Your task to perform on an android device: set the timer Image 0: 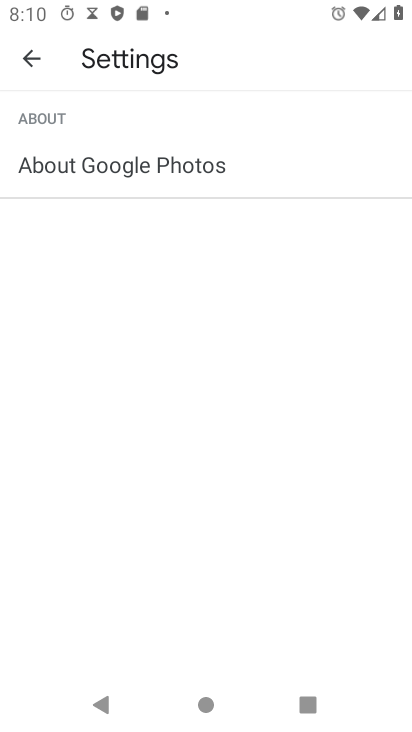
Step 0: press home button
Your task to perform on an android device: set the timer Image 1: 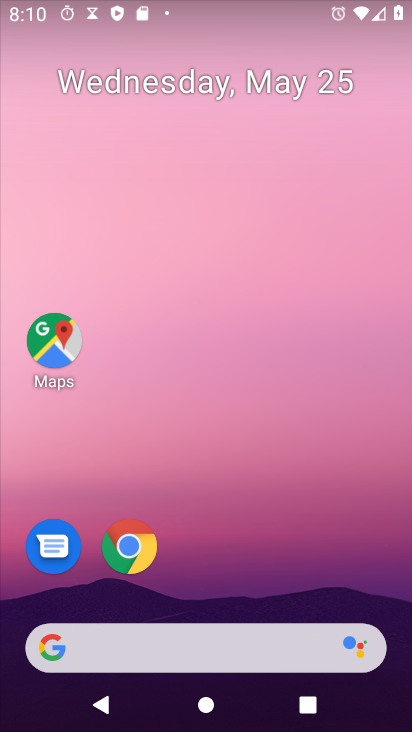
Step 1: drag from (239, 569) to (203, 19)
Your task to perform on an android device: set the timer Image 2: 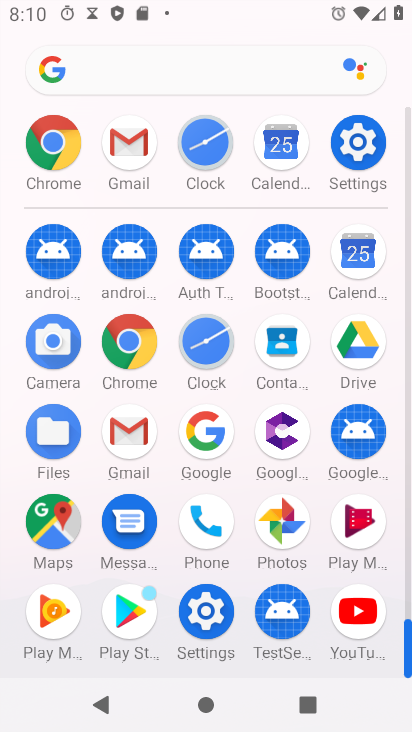
Step 2: click (187, 361)
Your task to perform on an android device: set the timer Image 3: 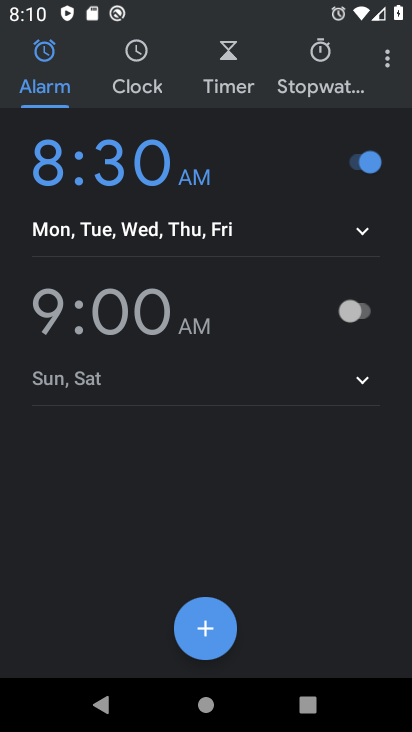
Step 3: click (221, 84)
Your task to perform on an android device: set the timer Image 4: 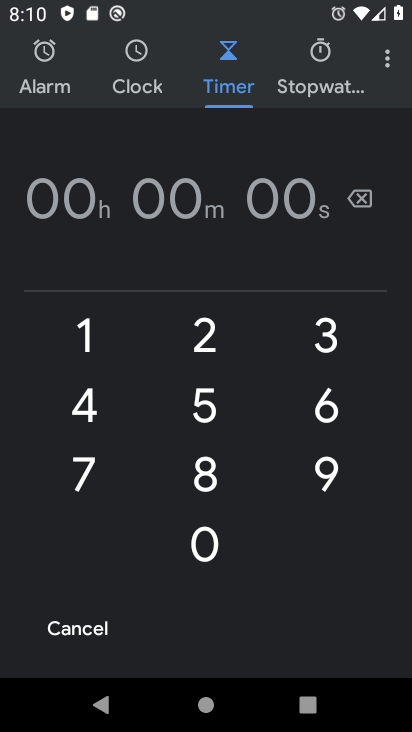
Step 4: click (89, 340)
Your task to perform on an android device: set the timer Image 5: 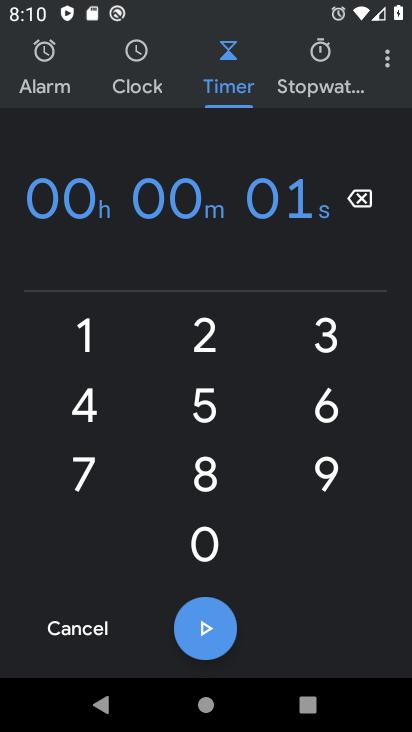
Step 5: click (204, 533)
Your task to perform on an android device: set the timer Image 6: 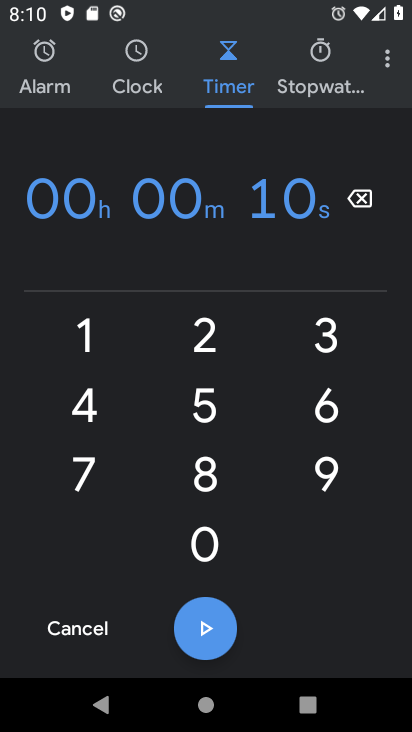
Step 6: click (202, 550)
Your task to perform on an android device: set the timer Image 7: 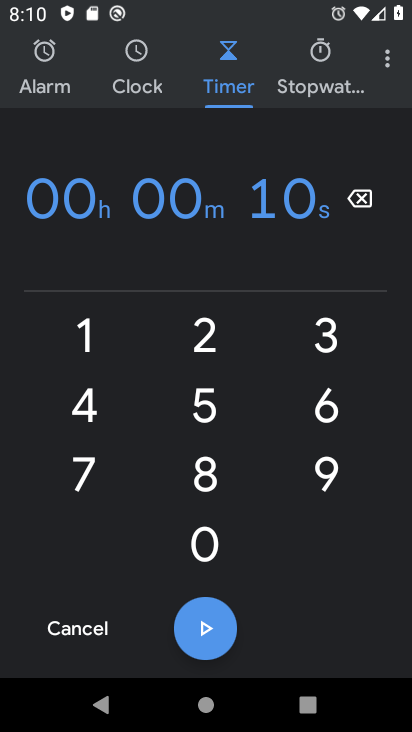
Step 7: click (202, 550)
Your task to perform on an android device: set the timer Image 8: 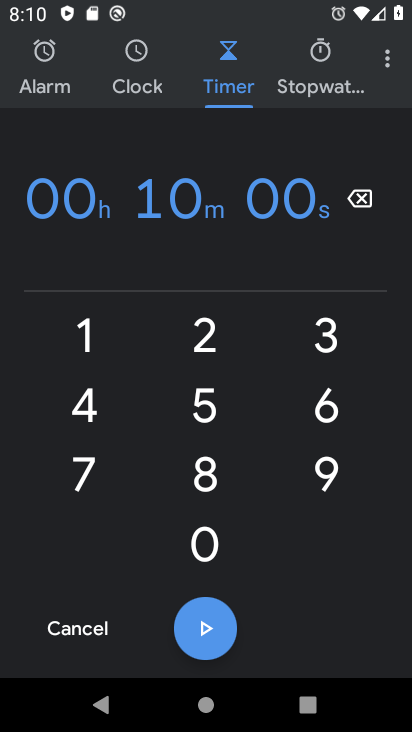
Step 8: click (202, 645)
Your task to perform on an android device: set the timer Image 9: 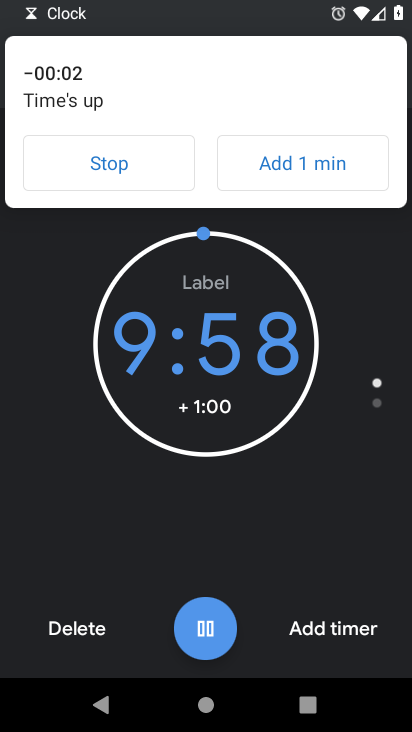
Step 9: click (119, 167)
Your task to perform on an android device: set the timer Image 10: 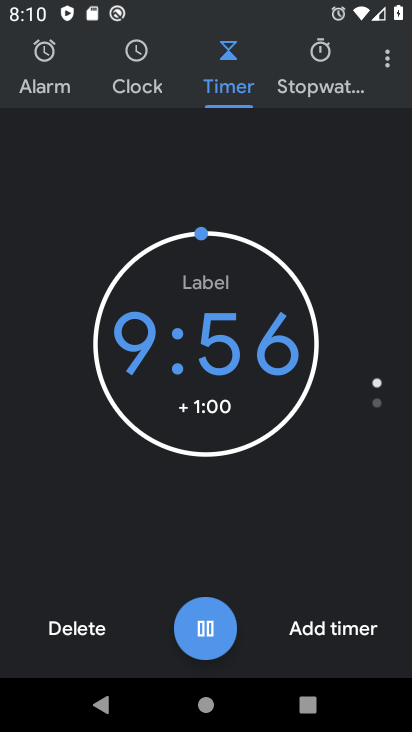
Step 10: click (323, 635)
Your task to perform on an android device: set the timer Image 11: 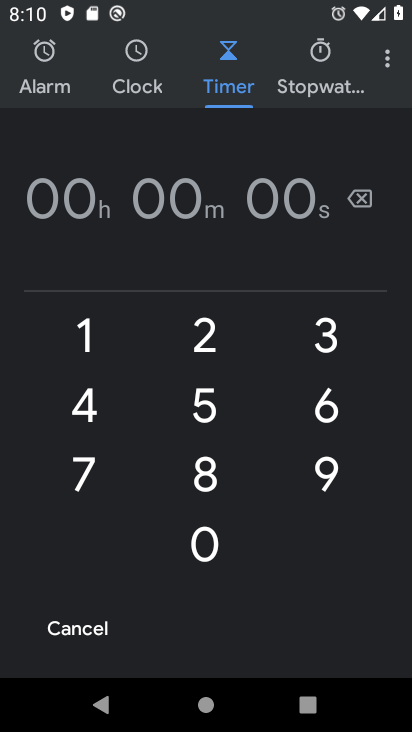
Step 11: task complete